Your task to perform on an android device: toggle priority inbox in the gmail app Image 0: 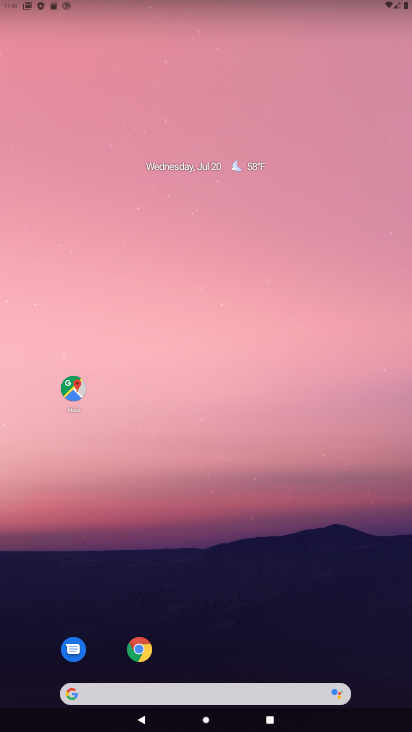
Step 0: drag from (200, 657) to (246, 72)
Your task to perform on an android device: toggle priority inbox in the gmail app Image 1: 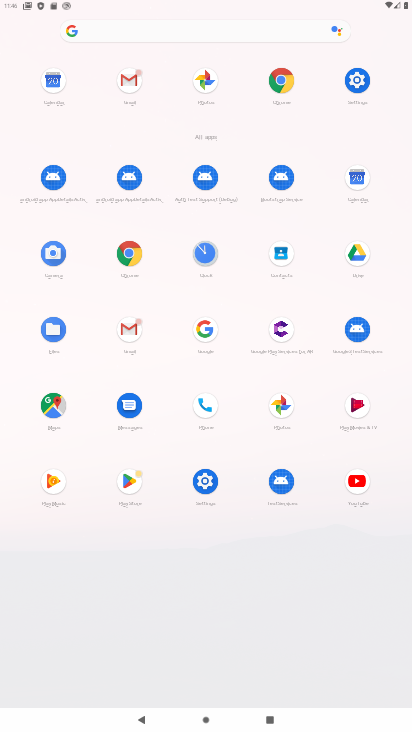
Step 1: click (130, 333)
Your task to perform on an android device: toggle priority inbox in the gmail app Image 2: 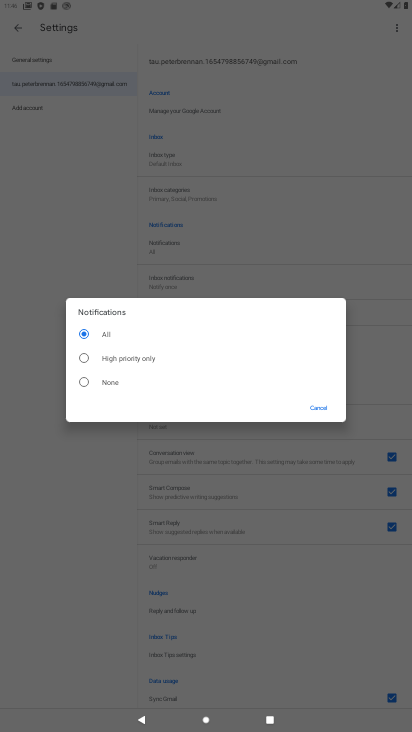
Step 2: click (299, 410)
Your task to perform on an android device: toggle priority inbox in the gmail app Image 3: 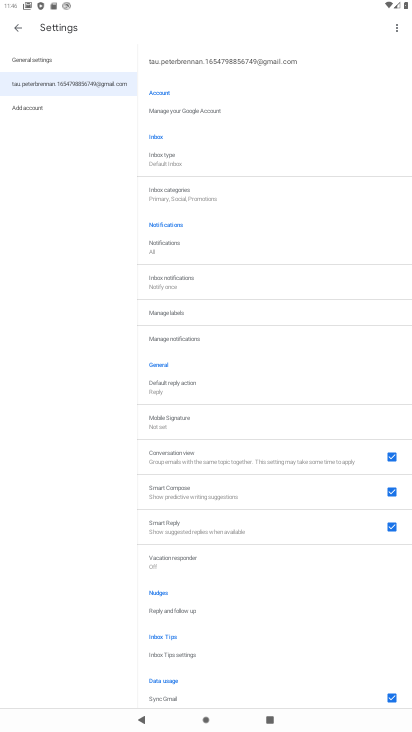
Step 3: click (165, 161)
Your task to perform on an android device: toggle priority inbox in the gmail app Image 4: 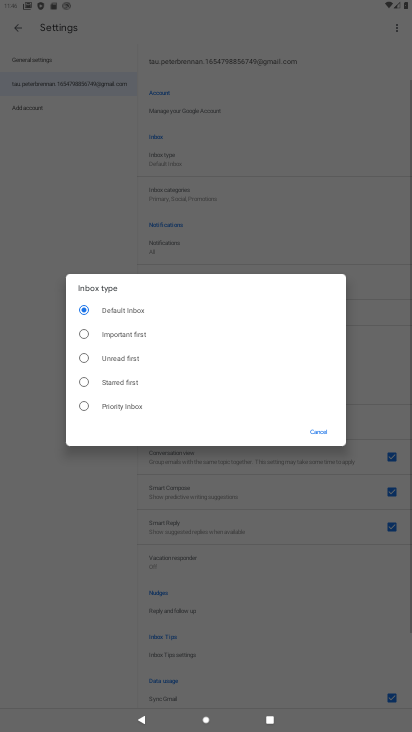
Step 4: click (83, 410)
Your task to perform on an android device: toggle priority inbox in the gmail app Image 5: 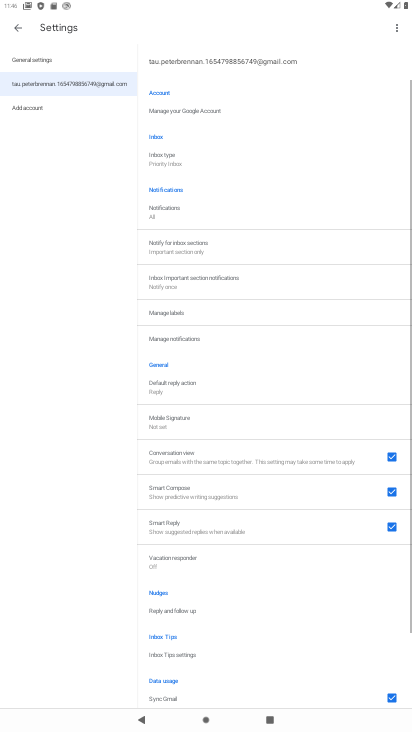
Step 5: task complete